Your task to perform on an android device: Open calendar and show me the third week of next month Image 0: 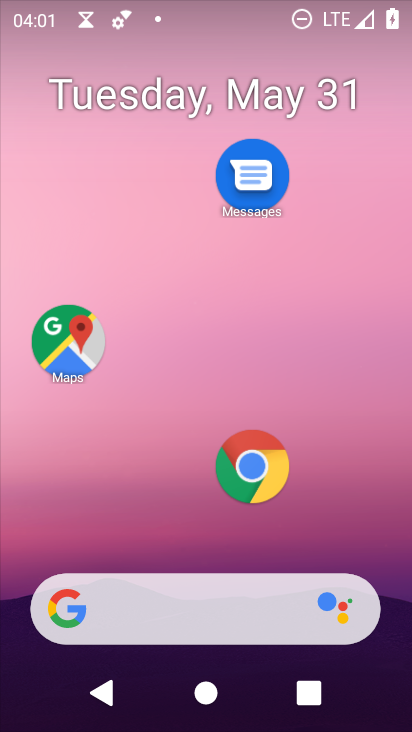
Step 0: drag from (156, 443) to (197, 65)
Your task to perform on an android device: Open calendar and show me the third week of next month Image 1: 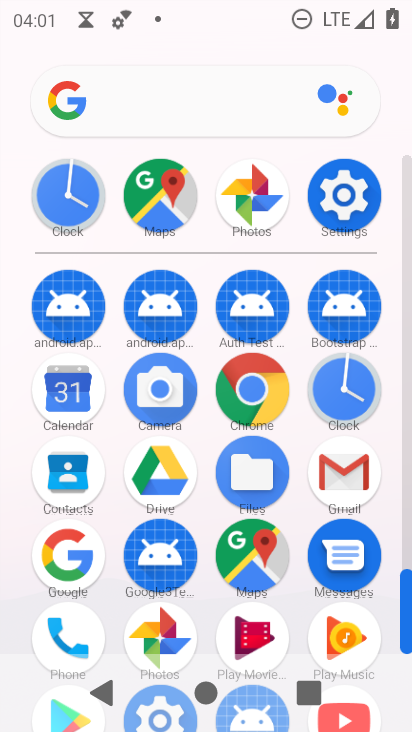
Step 1: click (64, 402)
Your task to perform on an android device: Open calendar and show me the third week of next month Image 2: 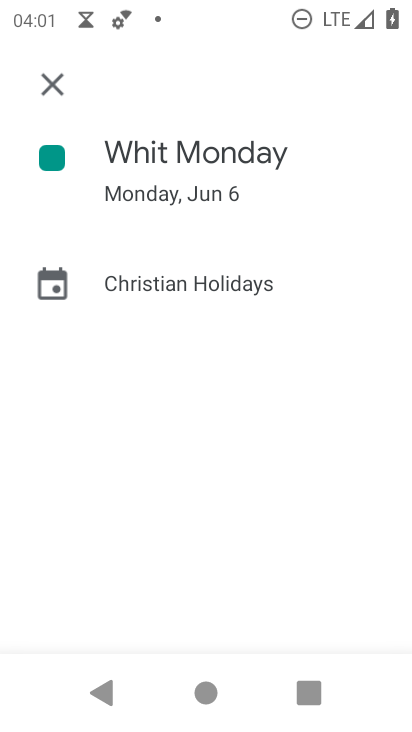
Step 2: click (55, 73)
Your task to perform on an android device: Open calendar and show me the third week of next month Image 3: 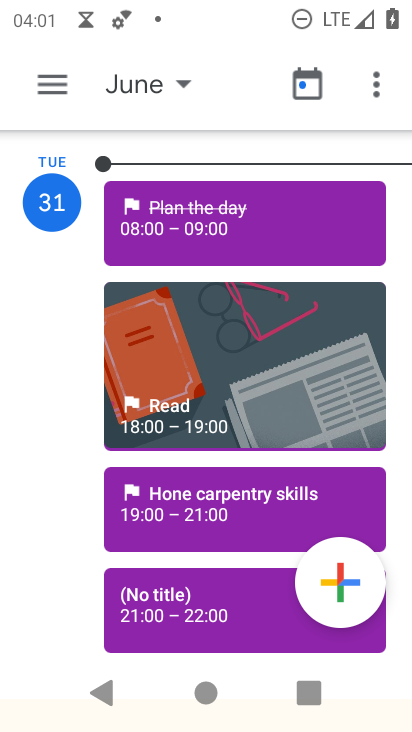
Step 3: click (163, 79)
Your task to perform on an android device: Open calendar and show me the third week of next month Image 4: 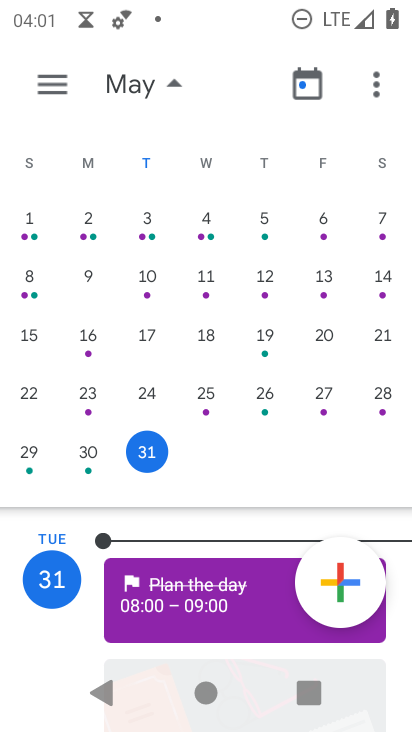
Step 4: drag from (379, 316) to (76, 303)
Your task to perform on an android device: Open calendar and show me the third week of next month Image 5: 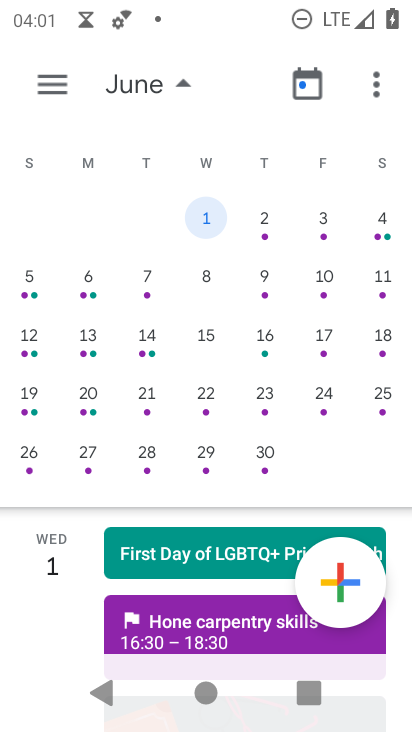
Step 5: click (88, 332)
Your task to perform on an android device: Open calendar and show me the third week of next month Image 6: 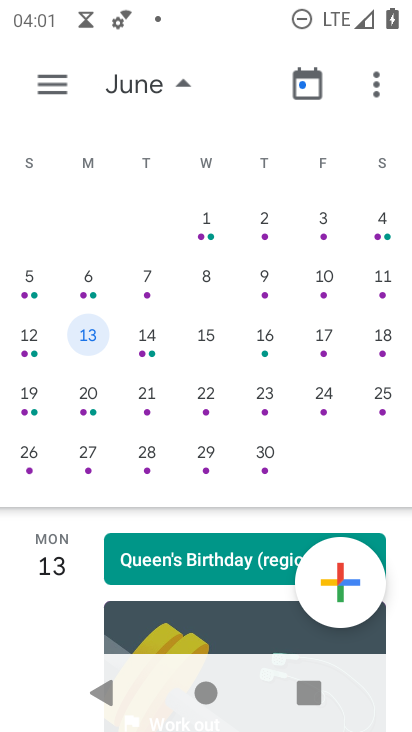
Step 6: task complete